Your task to perform on an android device: turn vacation reply on in the gmail app Image 0: 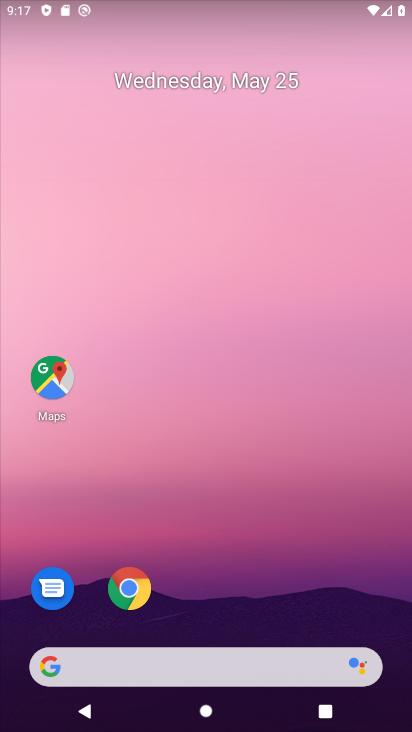
Step 0: drag from (240, 618) to (302, 4)
Your task to perform on an android device: turn vacation reply on in the gmail app Image 1: 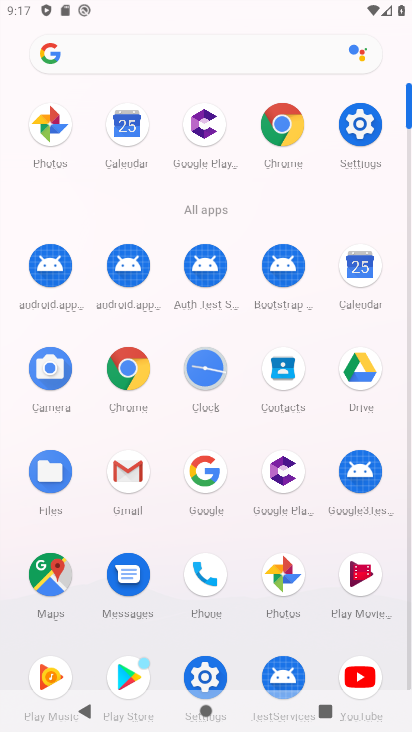
Step 1: click (127, 464)
Your task to perform on an android device: turn vacation reply on in the gmail app Image 2: 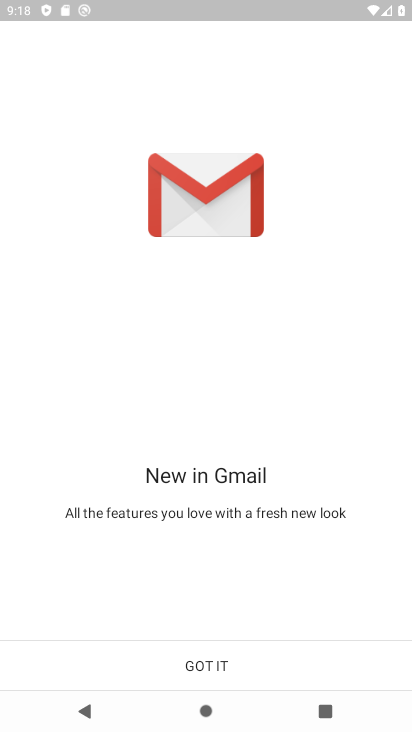
Step 2: click (151, 657)
Your task to perform on an android device: turn vacation reply on in the gmail app Image 3: 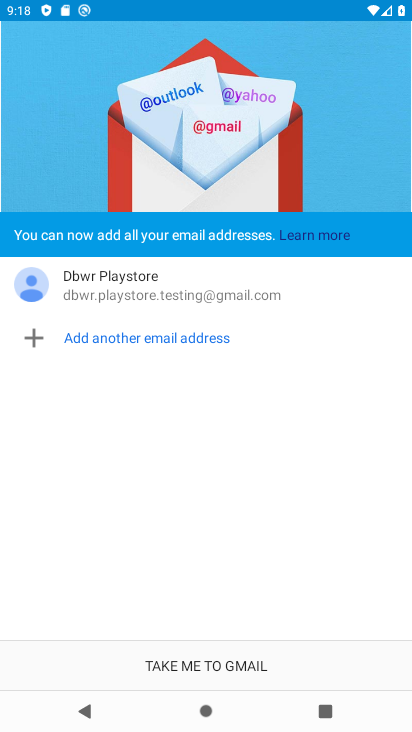
Step 3: click (159, 667)
Your task to perform on an android device: turn vacation reply on in the gmail app Image 4: 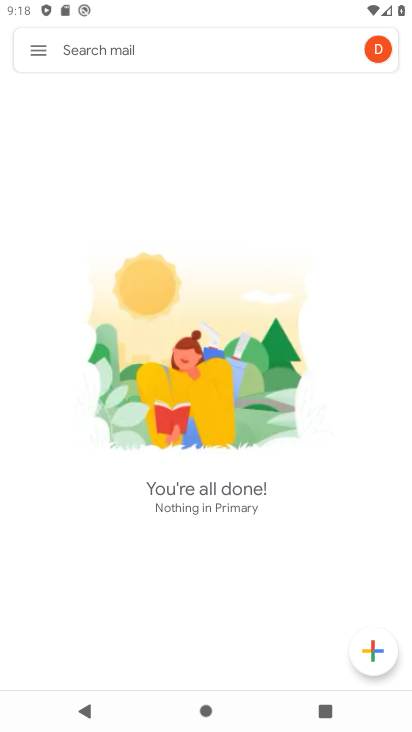
Step 4: click (39, 52)
Your task to perform on an android device: turn vacation reply on in the gmail app Image 5: 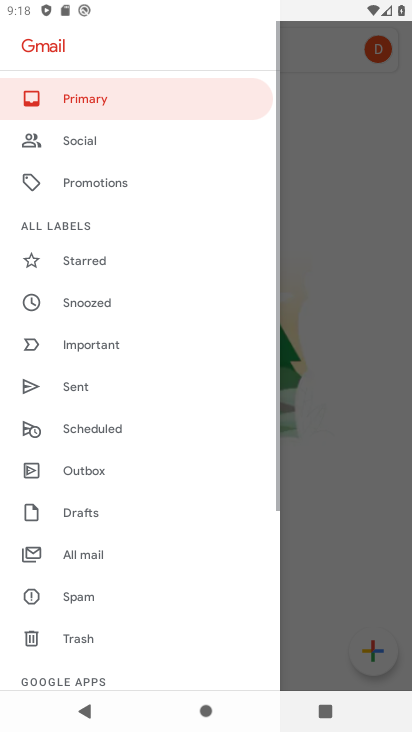
Step 5: drag from (148, 623) to (147, 253)
Your task to perform on an android device: turn vacation reply on in the gmail app Image 6: 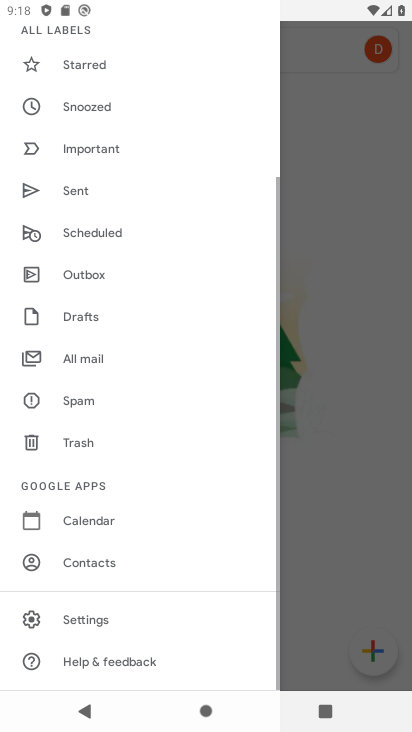
Step 6: click (68, 617)
Your task to perform on an android device: turn vacation reply on in the gmail app Image 7: 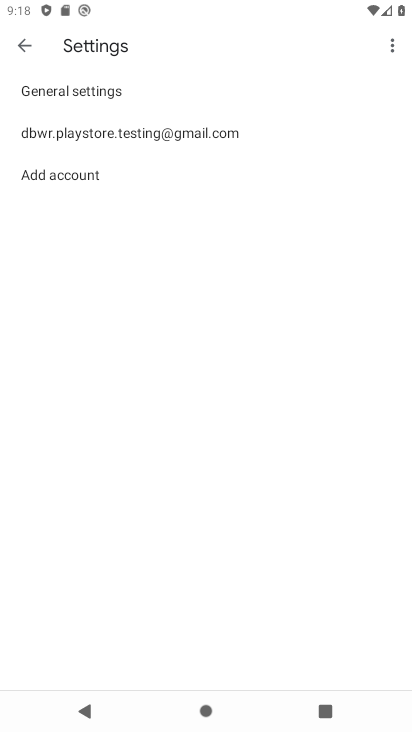
Step 7: click (59, 129)
Your task to perform on an android device: turn vacation reply on in the gmail app Image 8: 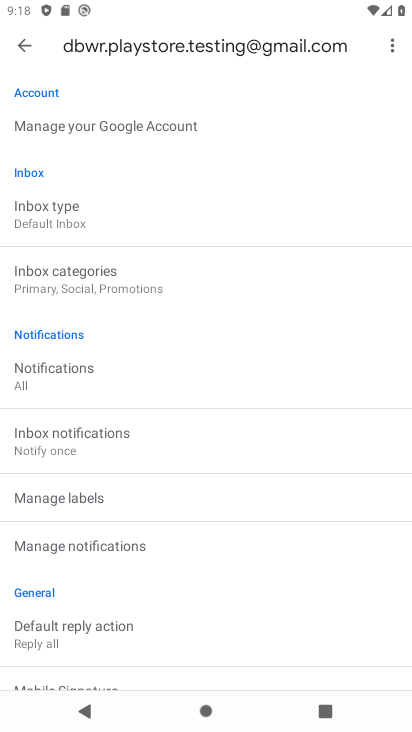
Step 8: drag from (65, 629) to (87, 318)
Your task to perform on an android device: turn vacation reply on in the gmail app Image 9: 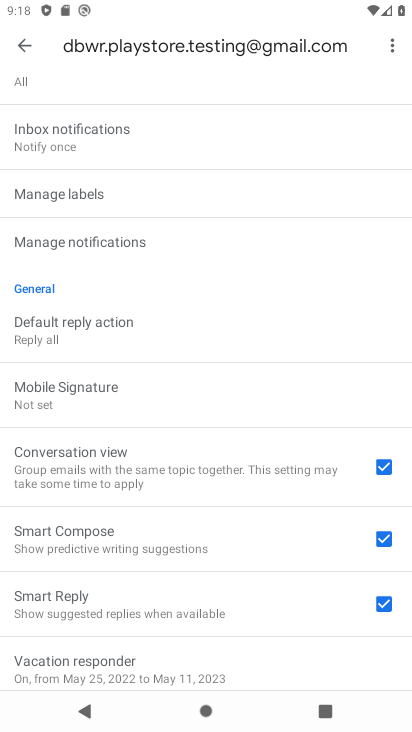
Step 9: drag from (107, 617) to (118, 449)
Your task to perform on an android device: turn vacation reply on in the gmail app Image 10: 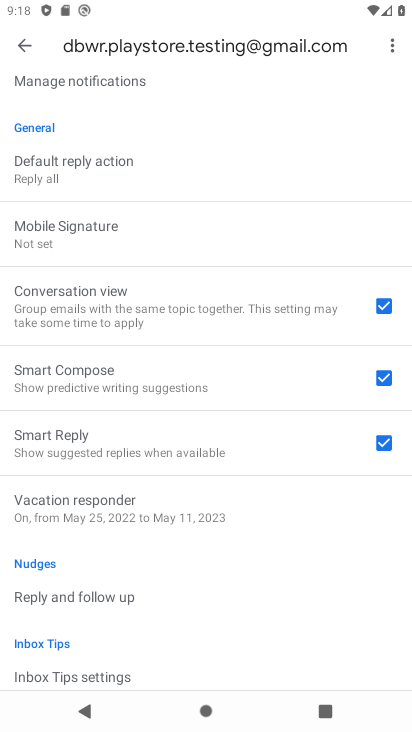
Step 10: click (134, 519)
Your task to perform on an android device: turn vacation reply on in the gmail app Image 11: 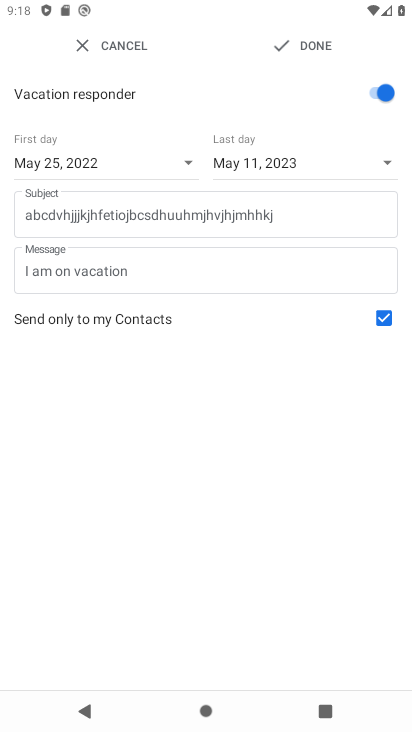
Step 11: click (306, 56)
Your task to perform on an android device: turn vacation reply on in the gmail app Image 12: 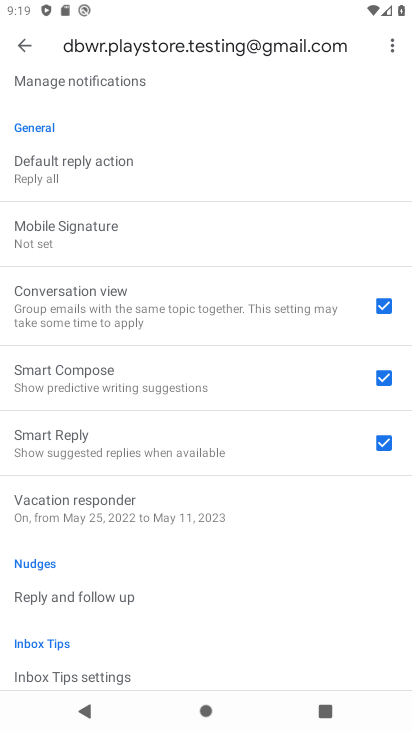
Step 12: task complete